Your task to perform on an android device: Is it going to rain this weekend? Image 0: 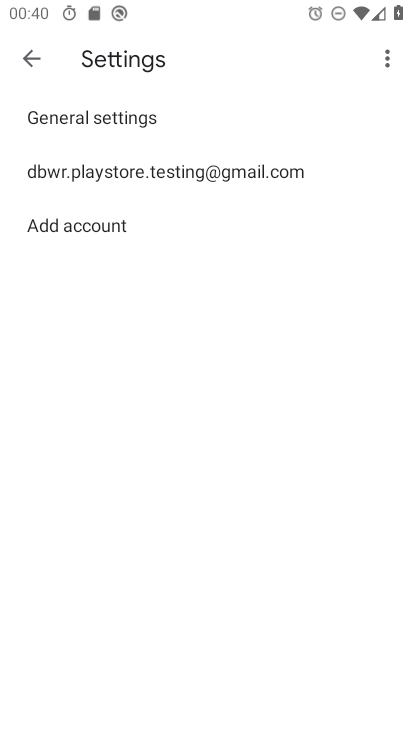
Step 0: press home button
Your task to perform on an android device: Is it going to rain this weekend? Image 1: 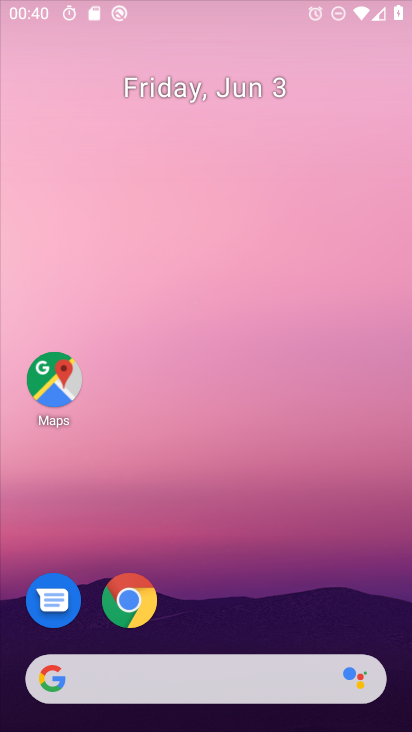
Step 1: drag from (240, 617) to (229, 53)
Your task to perform on an android device: Is it going to rain this weekend? Image 2: 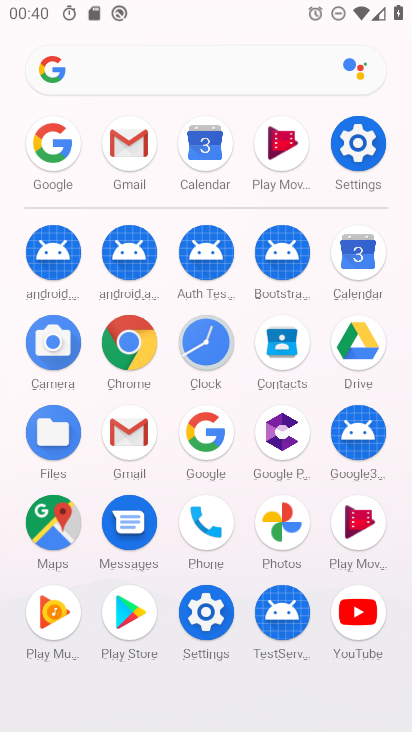
Step 2: click (211, 436)
Your task to perform on an android device: Is it going to rain this weekend? Image 3: 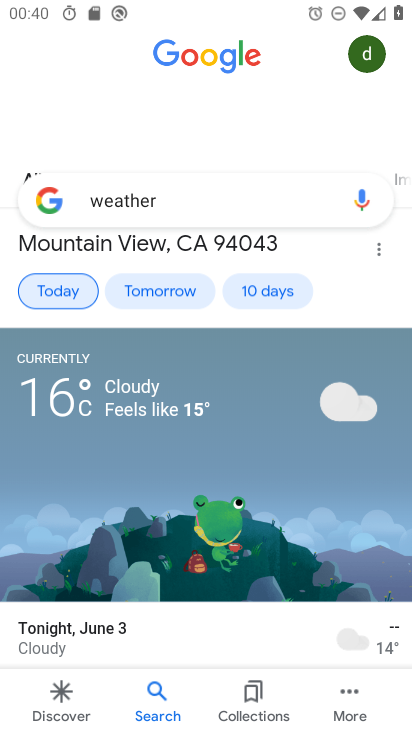
Step 3: click (197, 205)
Your task to perform on an android device: Is it going to rain this weekend? Image 4: 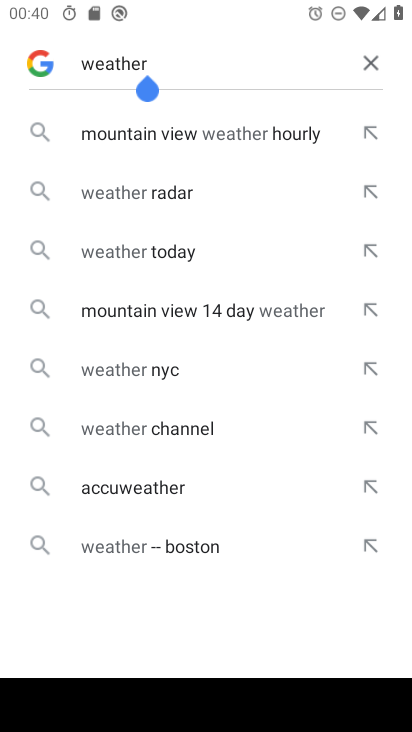
Step 4: click (378, 62)
Your task to perform on an android device: Is it going to rain this weekend? Image 5: 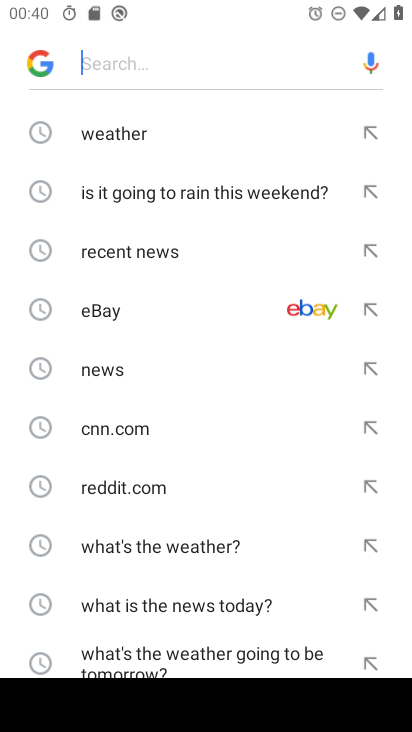
Step 5: click (160, 196)
Your task to perform on an android device: Is it going to rain this weekend? Image 6: 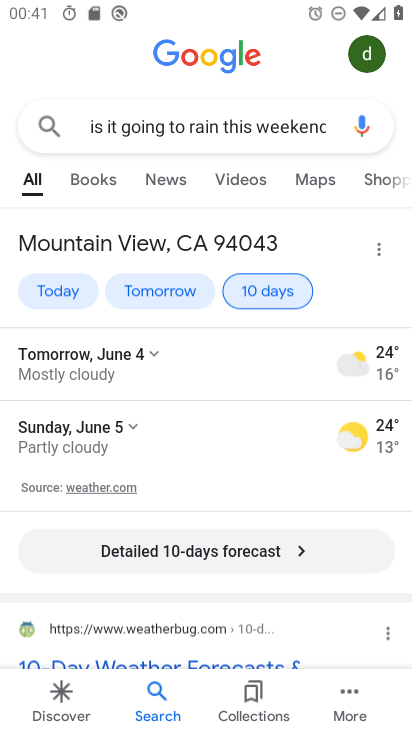
Step 6: task complete